Your task to perform on an android device: Show me the alarms in the clock app Image 0: 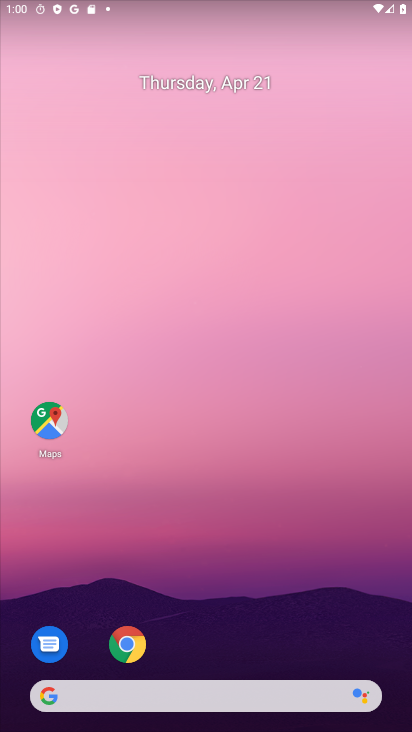
Step 0: drag from (293, 626) to (306, 304)
Your task to perform on an android device: Show me the alarms in the clock app Image 1: 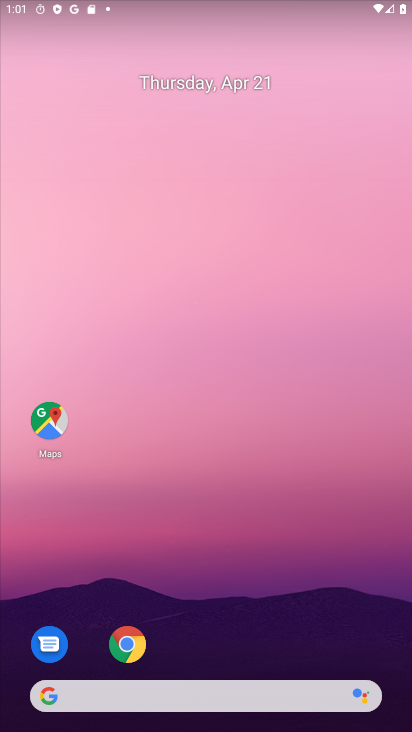
Step 1: drag from (351, 642) to (224, 80)
Your task to perform on an android device: Show me the alarms in the clock app Image 2: 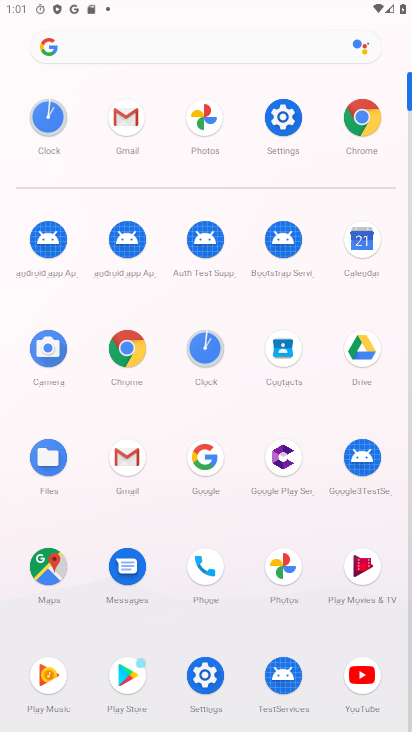
Step 2: click (213, 353)
Your task to perform on an android device: Show me the alarms in the clock app Image 3: 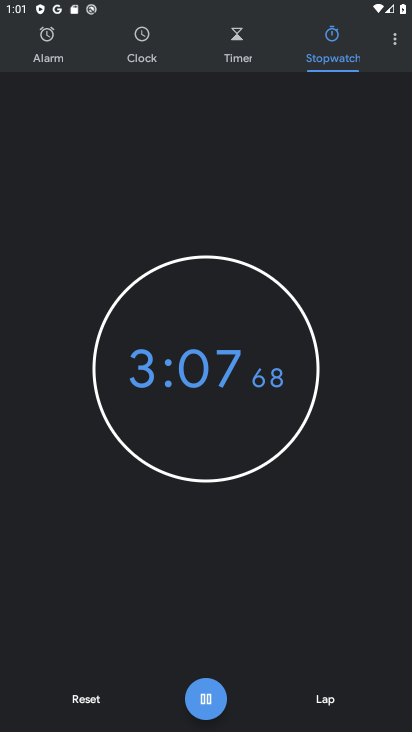
Step 3: click (35, 38)
Your task to perform on an android device: Show me the alarms in the clock app Image 4: 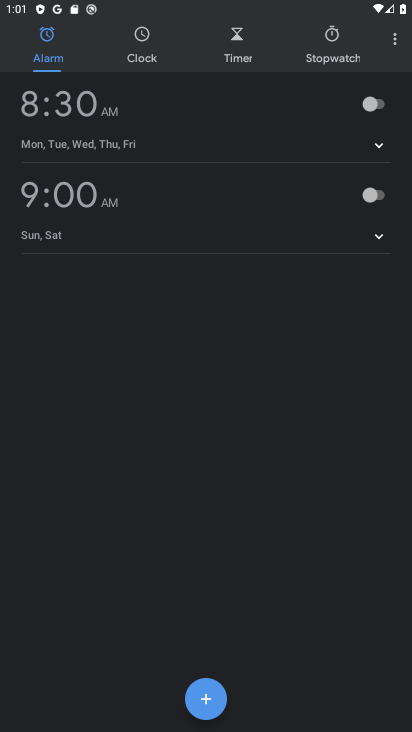
Step 4: task complete